Your task to perform on an android device: Search for "razer nari" on walmart, select the first entry, add it to the cart, then select checkout. Image 0: 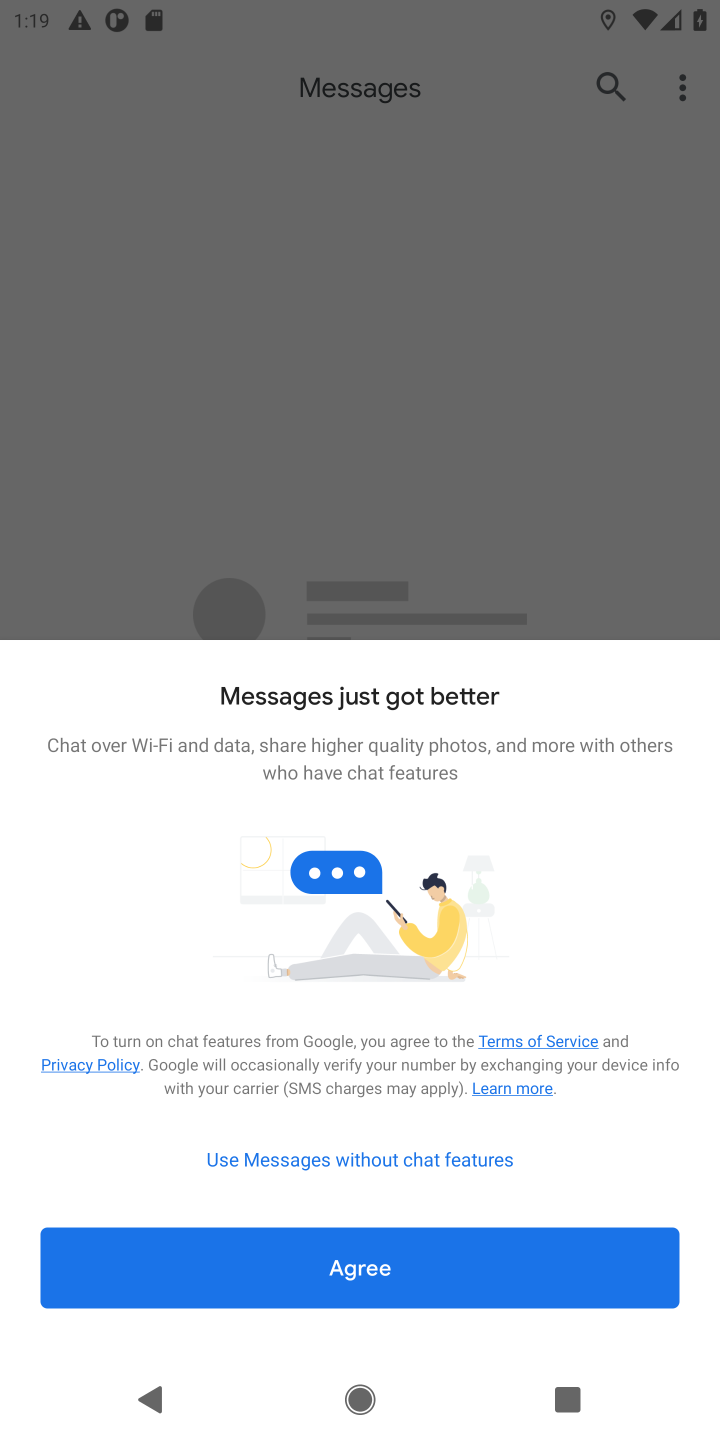
Step 0: press home button
Your task to perform on an android device: Search for "razer nari" on walmart, select the first entry, add it to the cart, then select checkout. Image 1: 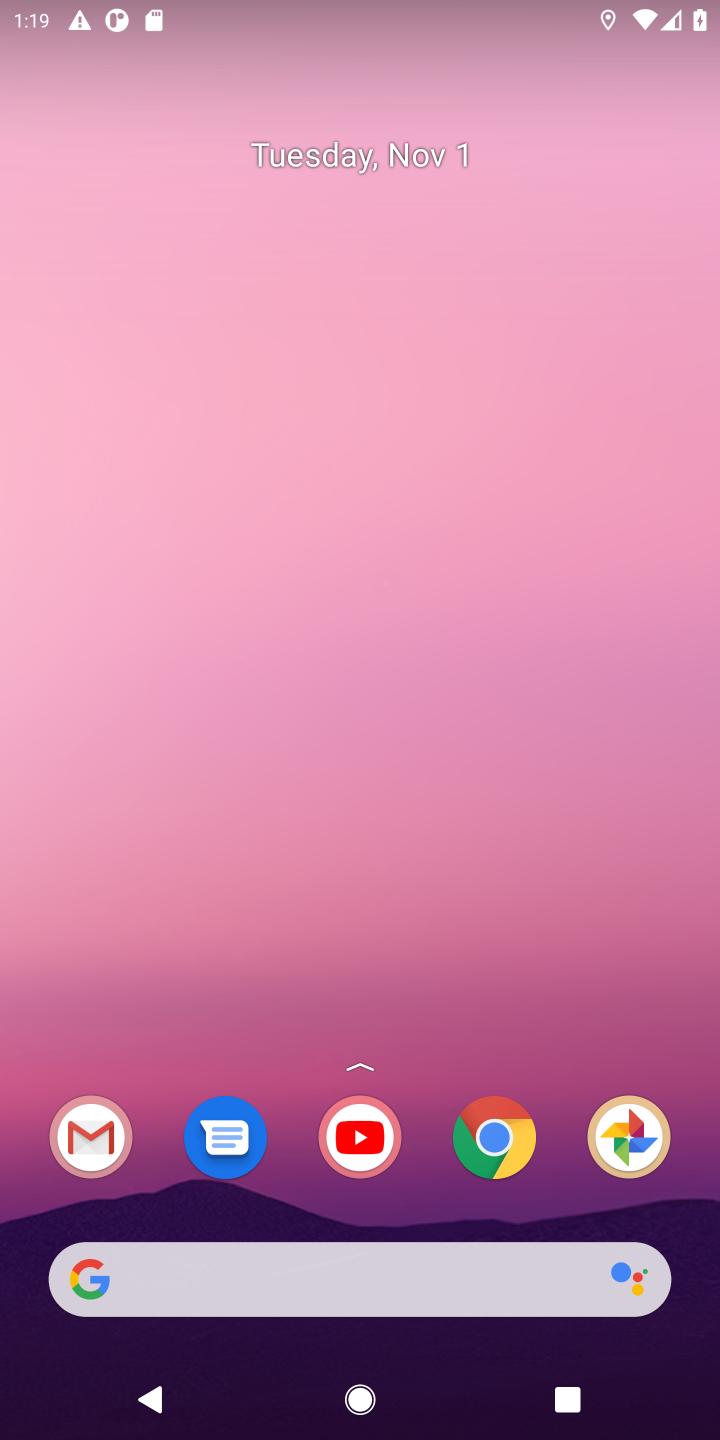
Step 1: drag from (253, 865) to (434, 119)
Your task to perform on an android device: Search for "razer nari" on walmart, select the first entry, add it to the cart, then select checkout. Image 2: 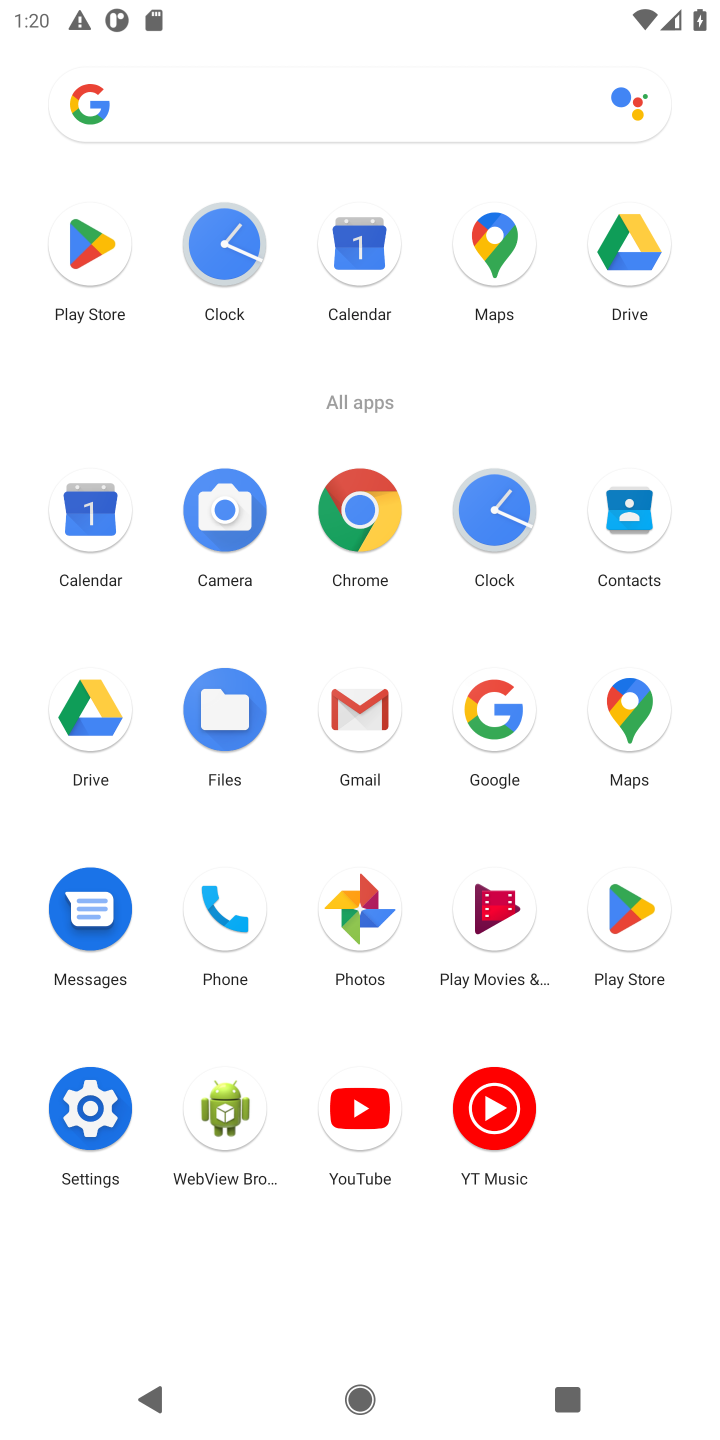
Step 2: click (339, 511)
Your task to perform on an android device: Search for "razer nari" on walmart, select the first entry, add it to the cart, then select checkout. Image 3: 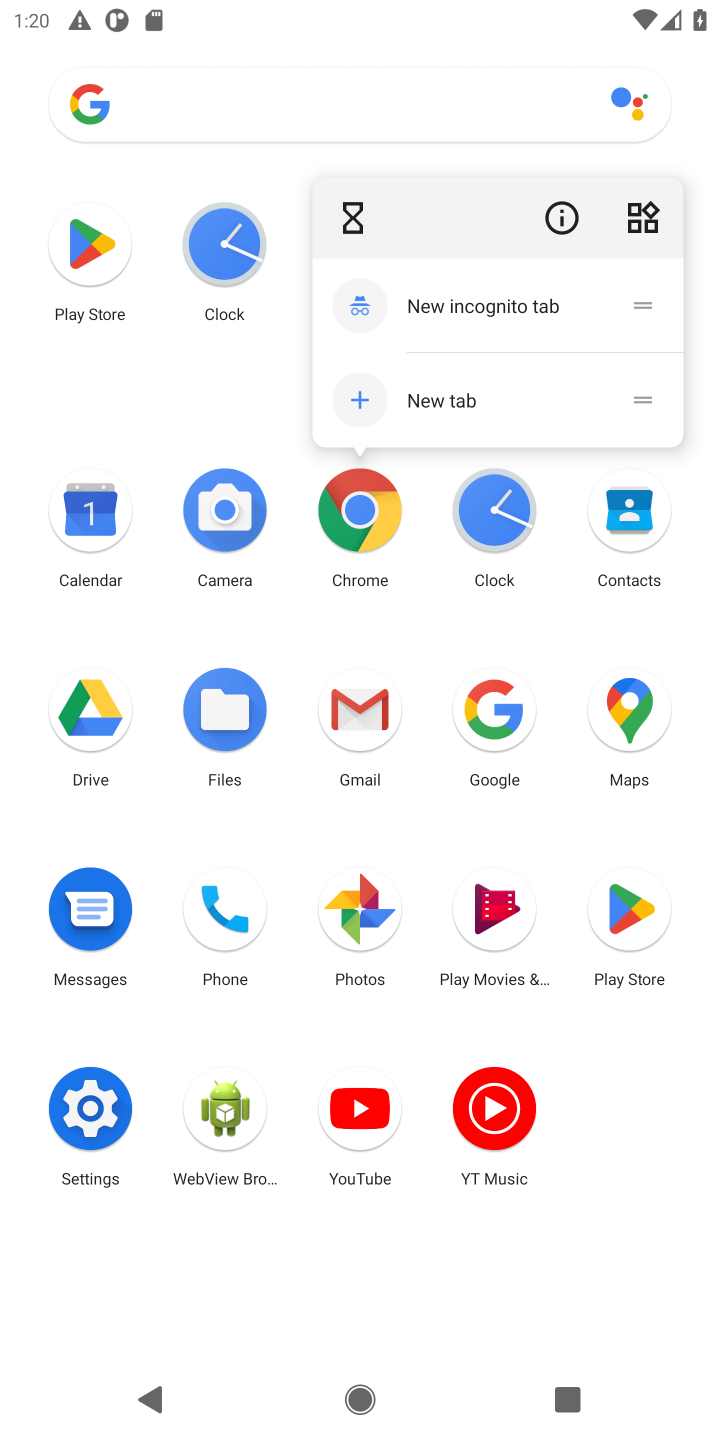
Step 3: click (342, 497)
Your task to perform on an android device: Search for "razer nari" on walmart, select the first entry, add it to the cart, then select checkout. Image 4: 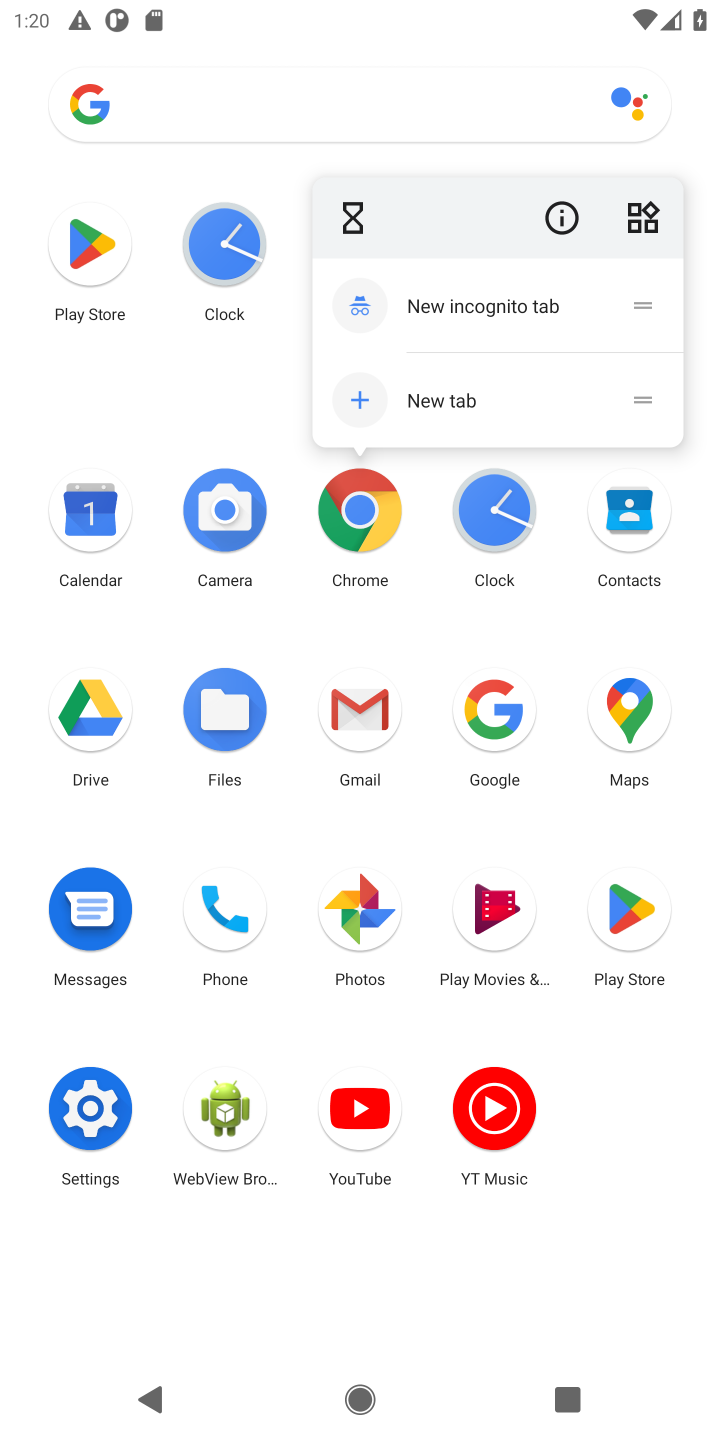
Step 4: click (341, 496)
Your task to perform on an android device: Search for "razer nari" on walmart, select the first entry, add it to the cart, then select checkout. Image 5: 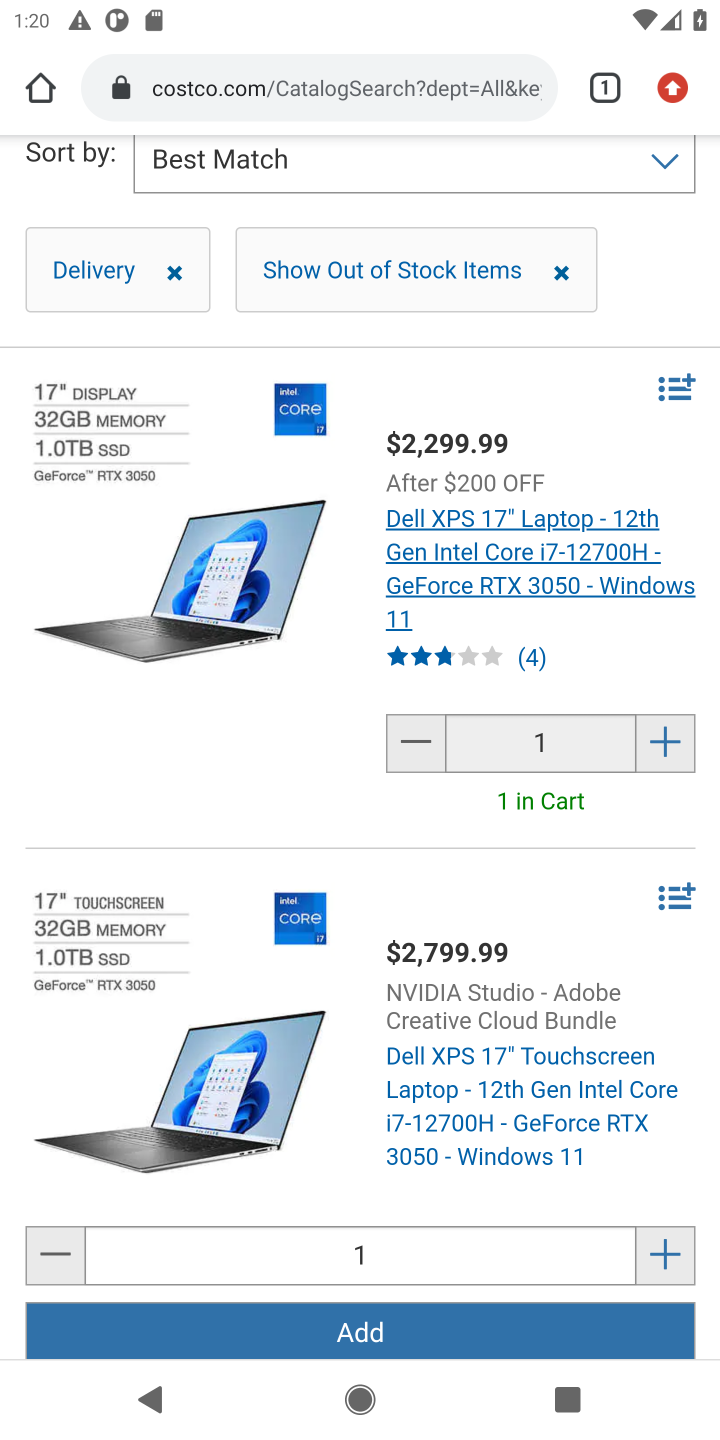
Step 5: click (254, 92)
Your task to perform on an android device: Search for "razer nari" on walmart, select the first entry, add it to the cart, then select checkout. Image 6: 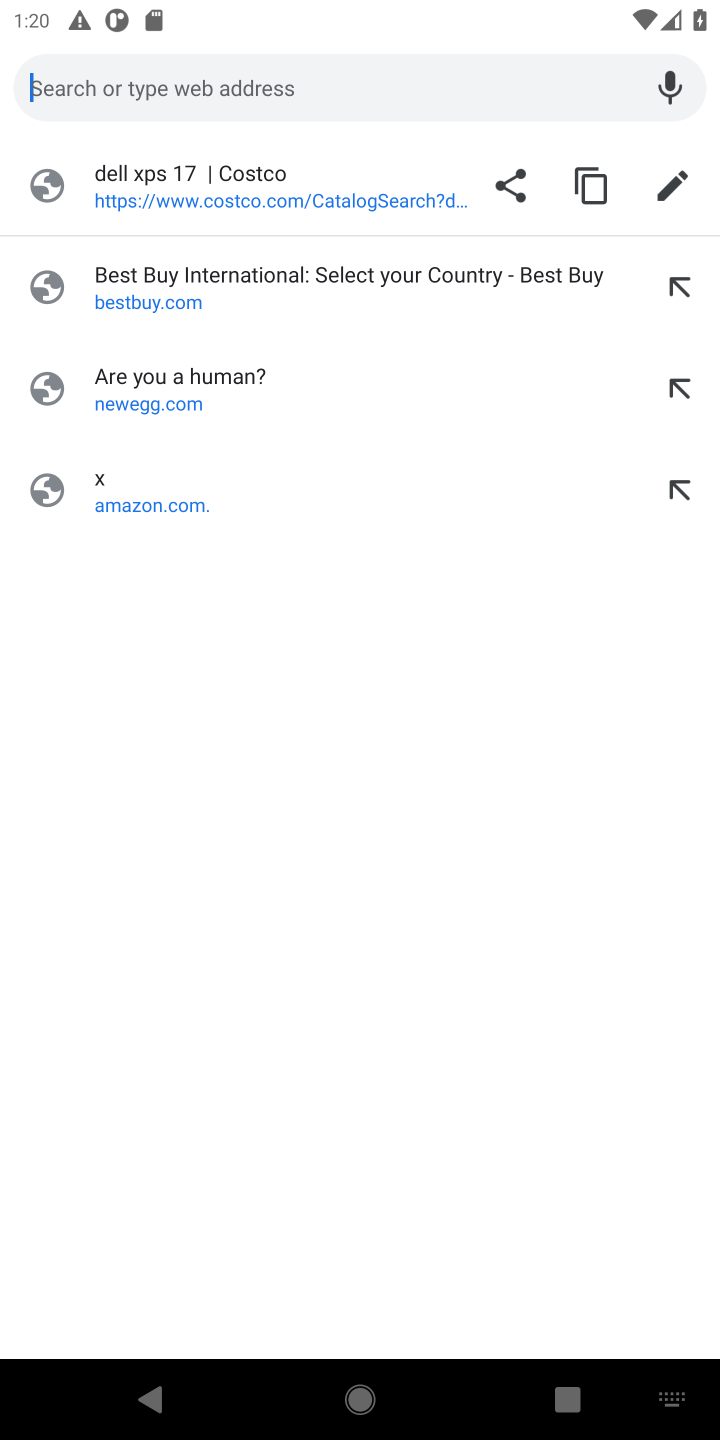
Step 6: type "walmart"
Your task to perform on an android device: Search for "razer nari" on walmart, select the first entry, add it to the cart, then select checkout. Image 7: 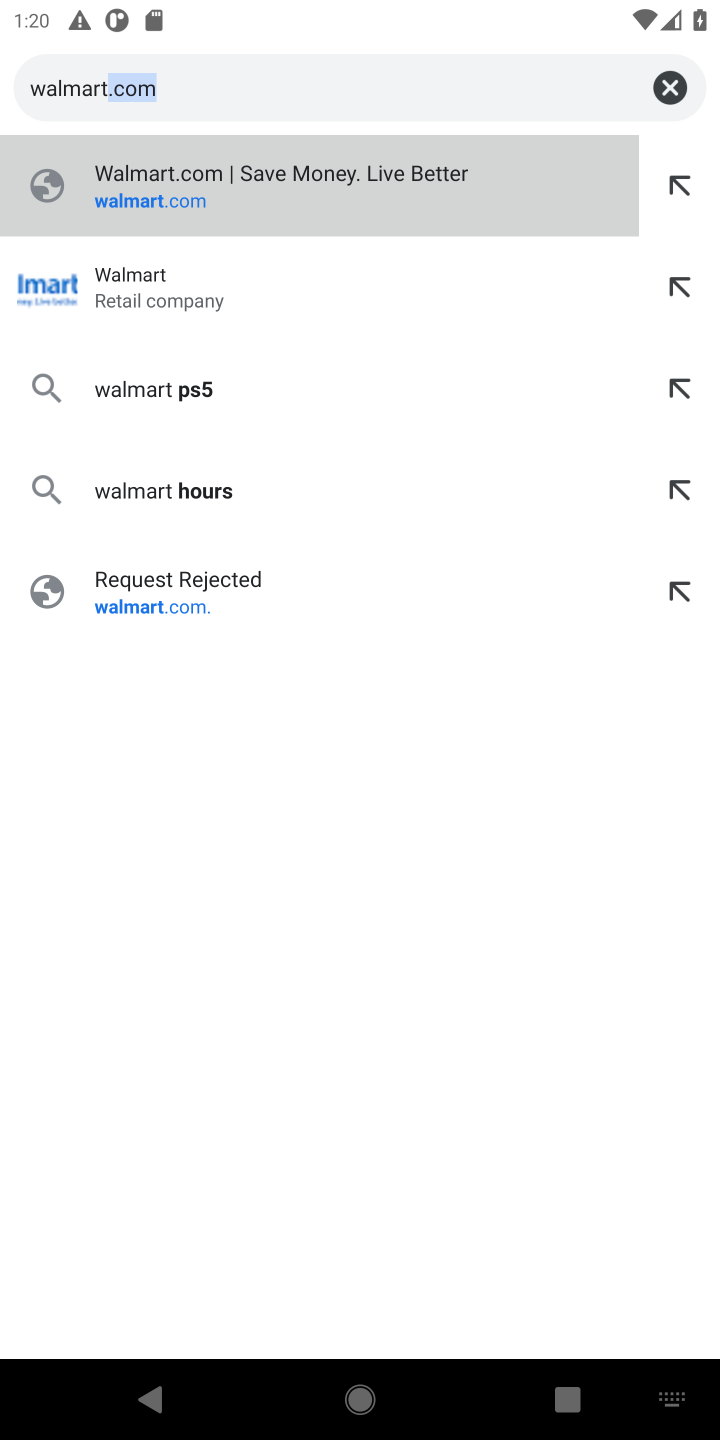
Step 7: press enter
Your task to perform on an android device: Search for "razer nari" on walmart, select the first entry, add it to the cart, then select checkout. Image 8: 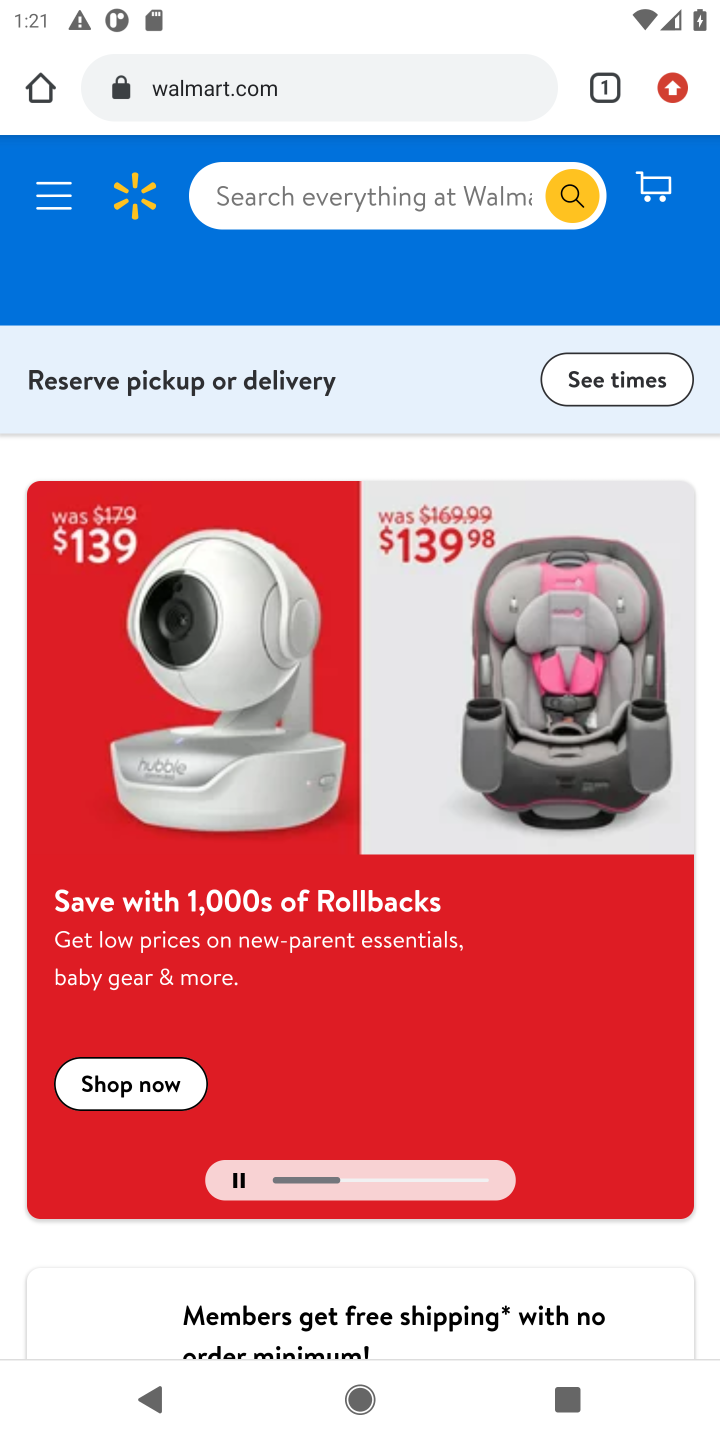
Step 8: click (320, 200)
Your task to perform on an android device: Search for "razer nari" on walmart, select the first entry, add it to the cart, then select checkout. Image 9: 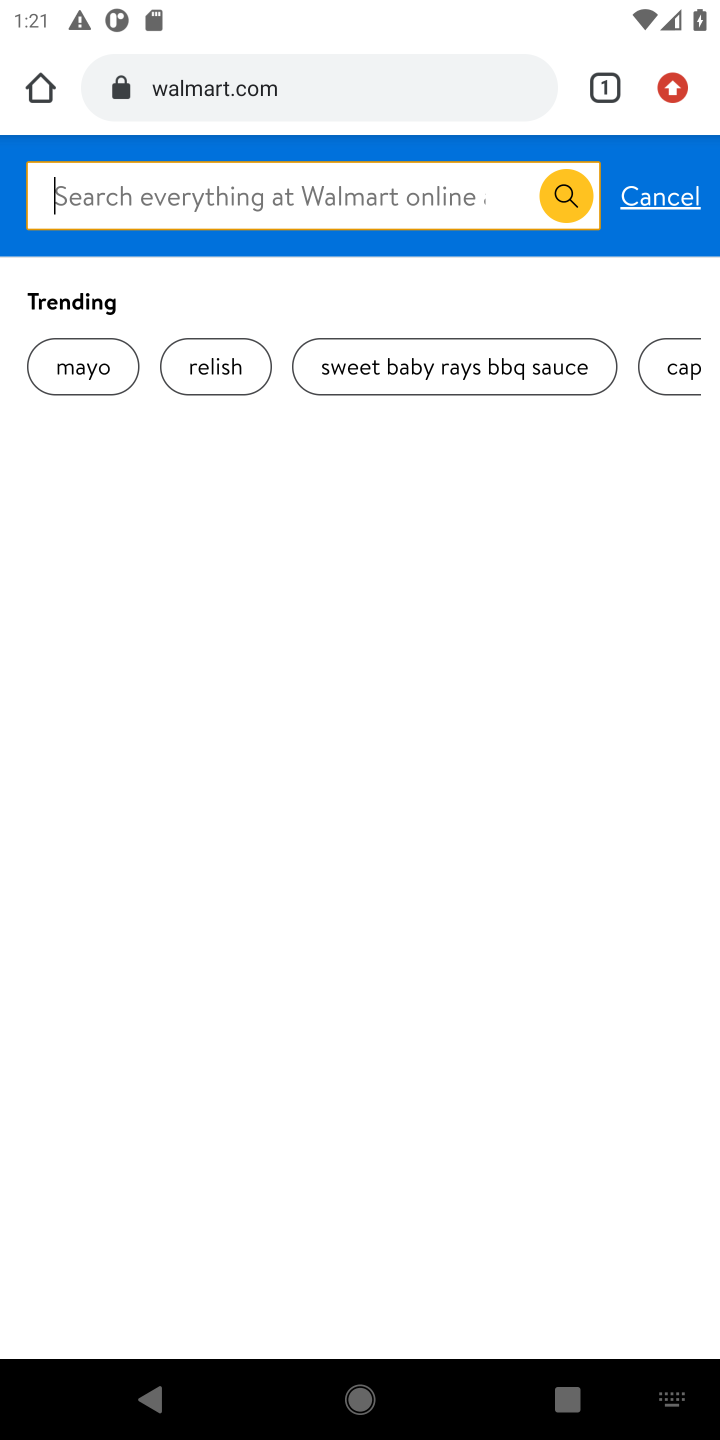
Step 9: type ""razer nari"
Your task to perform on an android device: Search for "razer nari" on walmart, select the first entry, add it to the cart, then select checkout. Image 10: 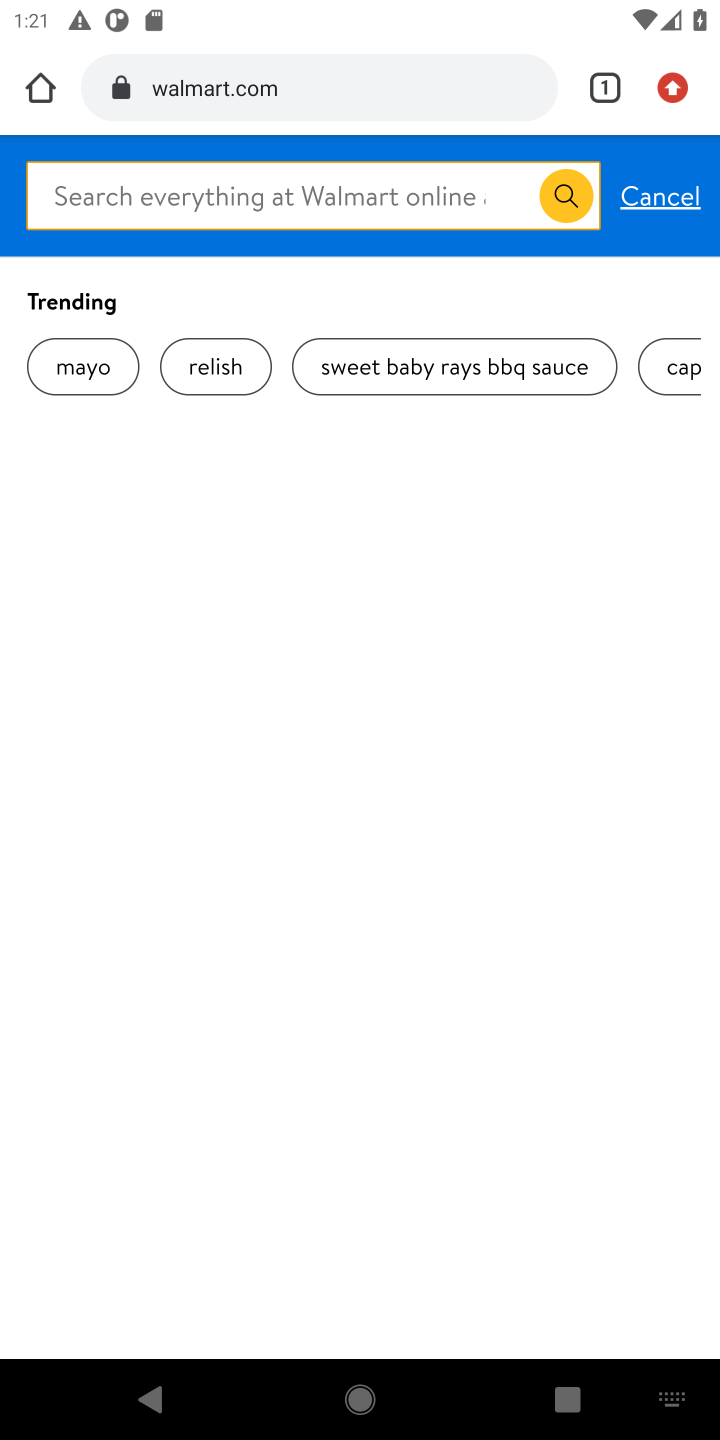
Step 10: press enter
Your task to perform on an android device: Search for "razer nari" on walmart, select the first entry, add it to the cart, then select checkout. Image 11: 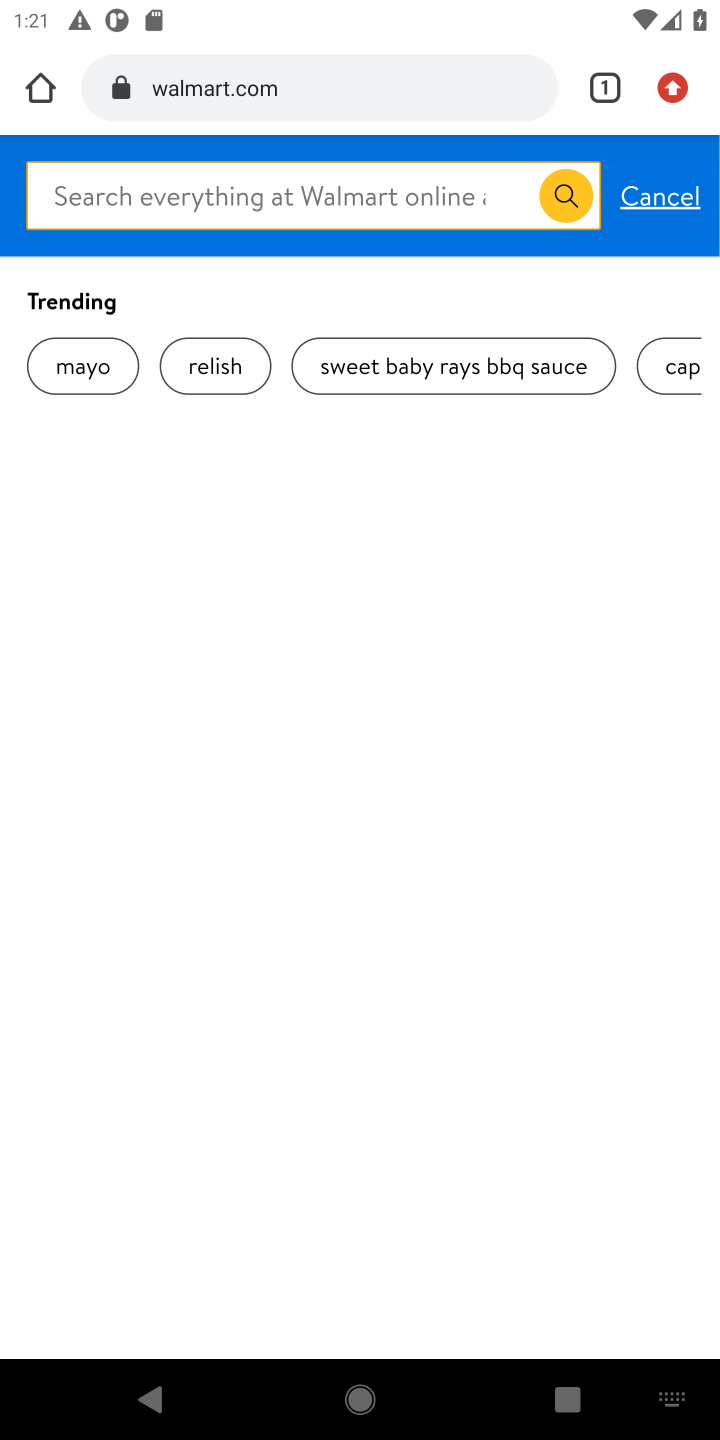
Step 11: type ""razer nari"
Your task to perform on an android device: Search for "razer nari" on walmart, select the first entry, add it to the cart, then select checkout. Image 12: 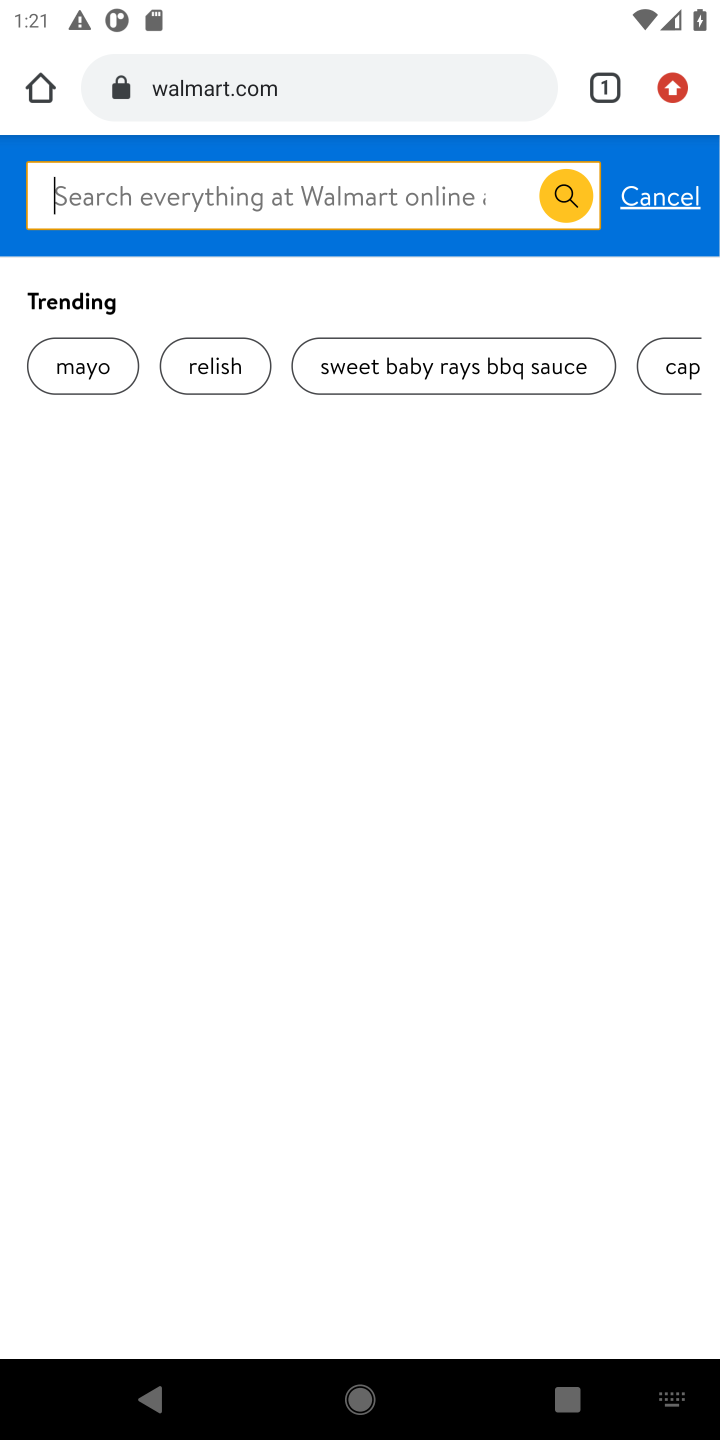
Step 12: press enter
Your task to perform on an android device: Search for "razer nari" on walmart, select the first entry, add it to the cart, then select checkout. Image 13: 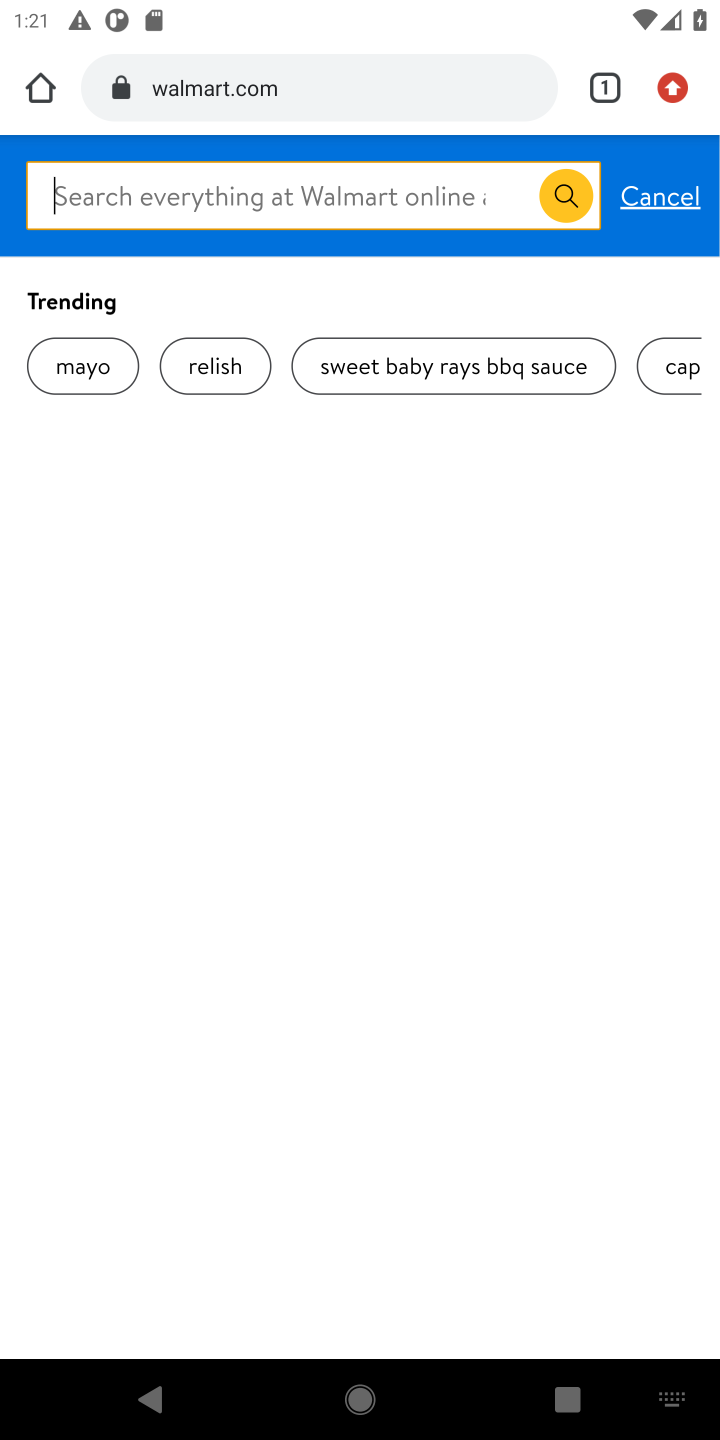
Step 13: click (88, 185)
Your task to perform on an android device: Search for "razer nari" on walmart, select the first entry, add it to the cart, then select checkout. Image 14: 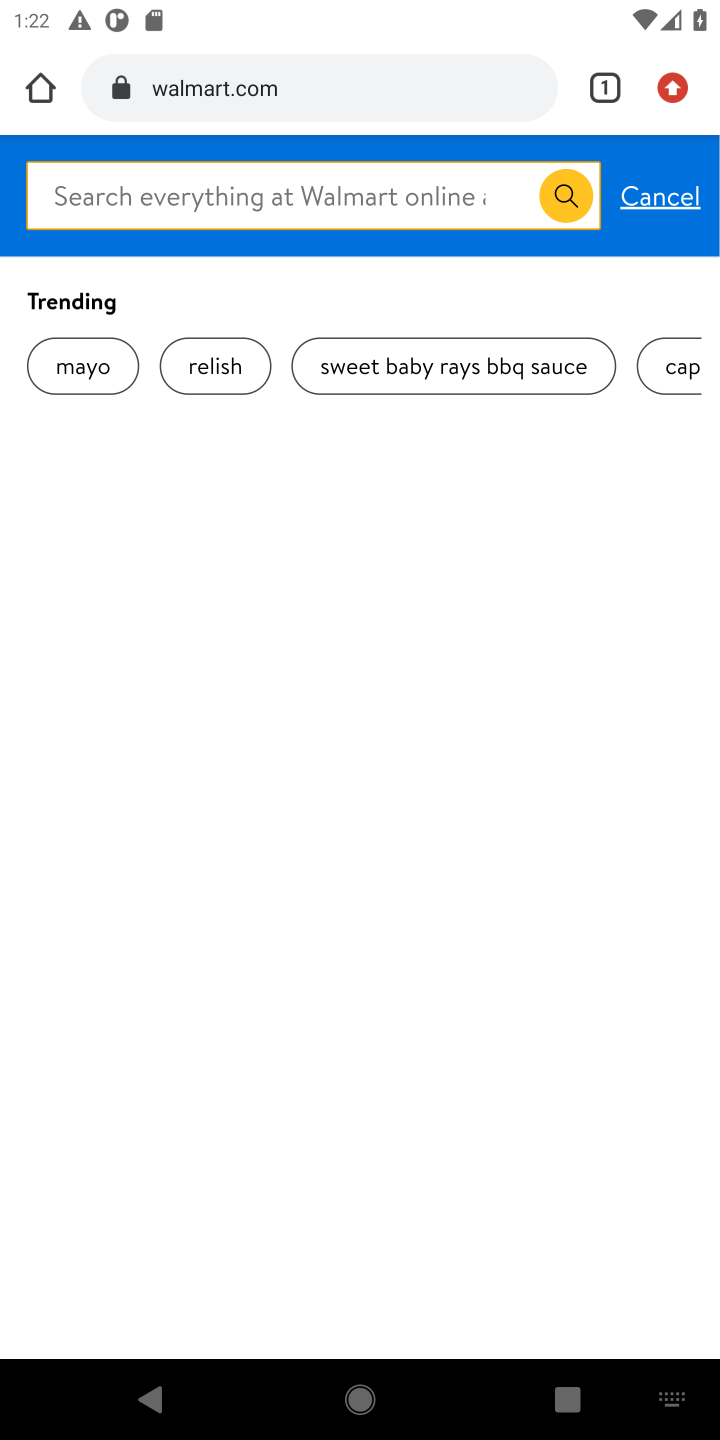
Step 14: type "azer nari"
Your task to perform on an android device: Search for "razer nari" on walmart, select the first entry, add it to the cart, then select checkout. Image 15: 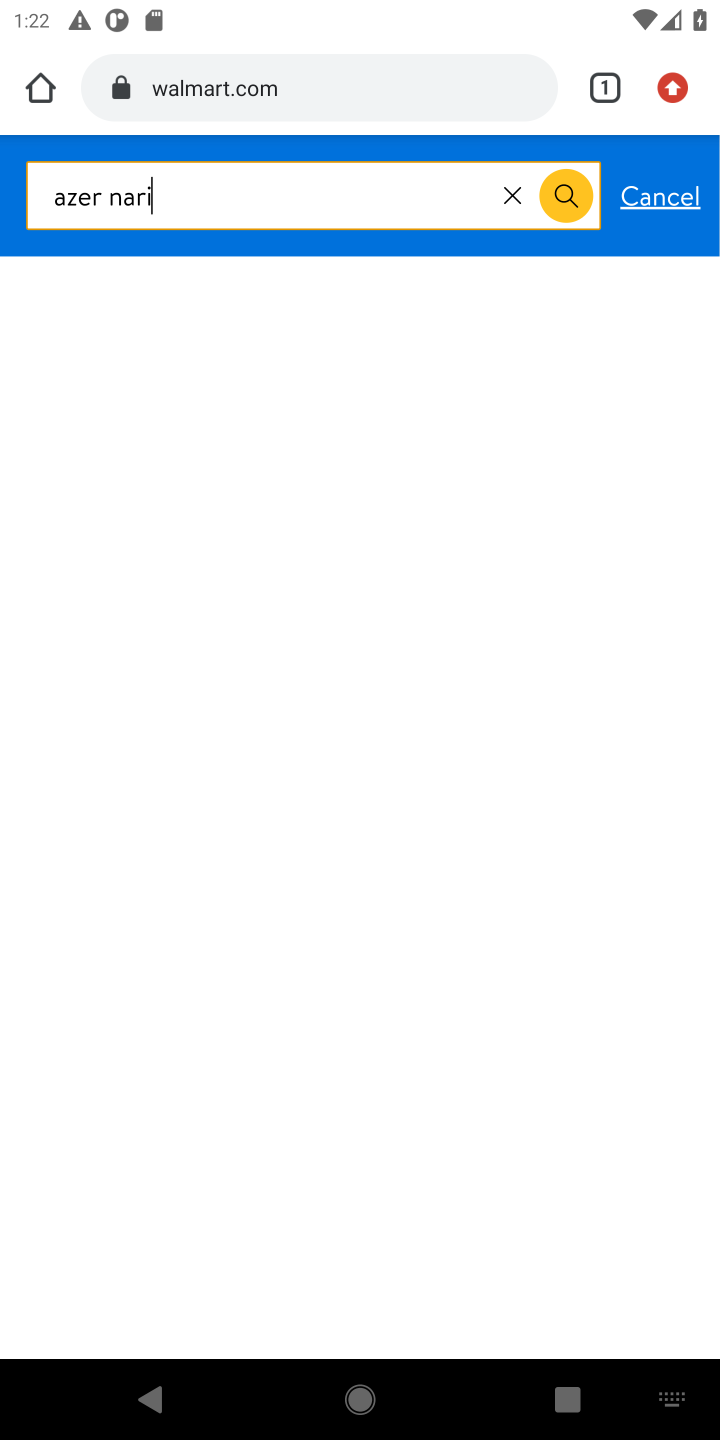
Step 15: press enter
Your task to perform on an android device: Search for "razer nari" on walmart, select the first entry, add it to the cart, then select checkout. Image 16: 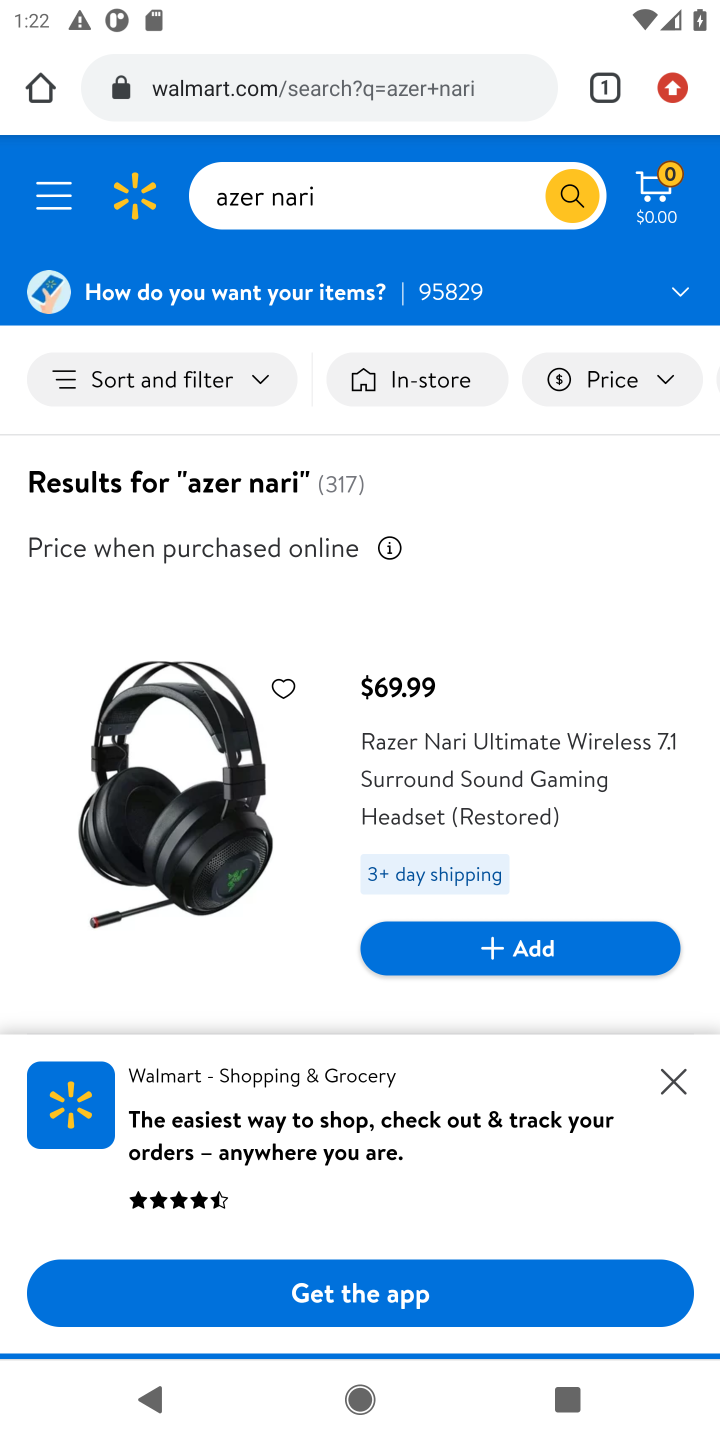
Step 16: click (533, 952)
Your task to perform on an android device: Search for "razer nari" on walmart, select the first entry, add it to the cart, then select checkout. Image 17: 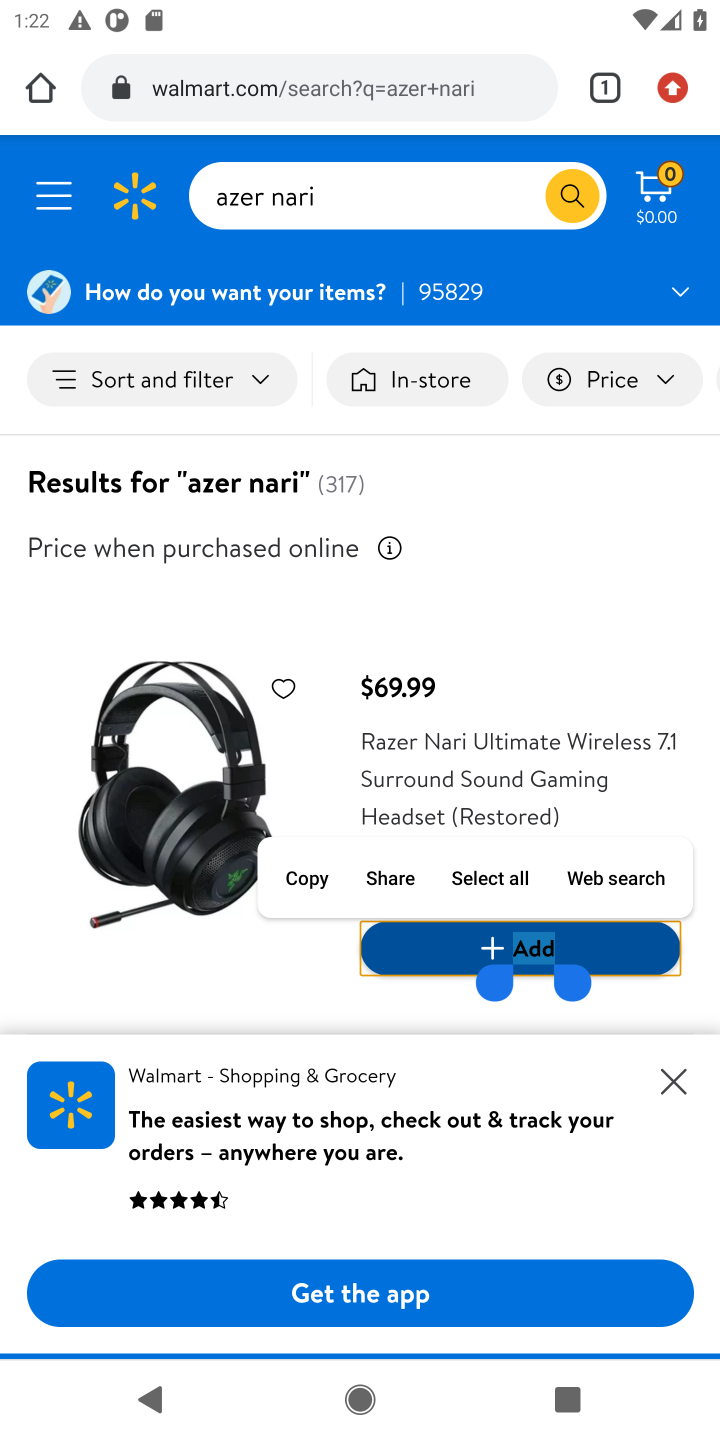
Step 17: click (459, 931)
Your task to perform on an android device: Search for "razer nari" on walmart, select the first entry, add it to the cart, then select checkout. Image 18: 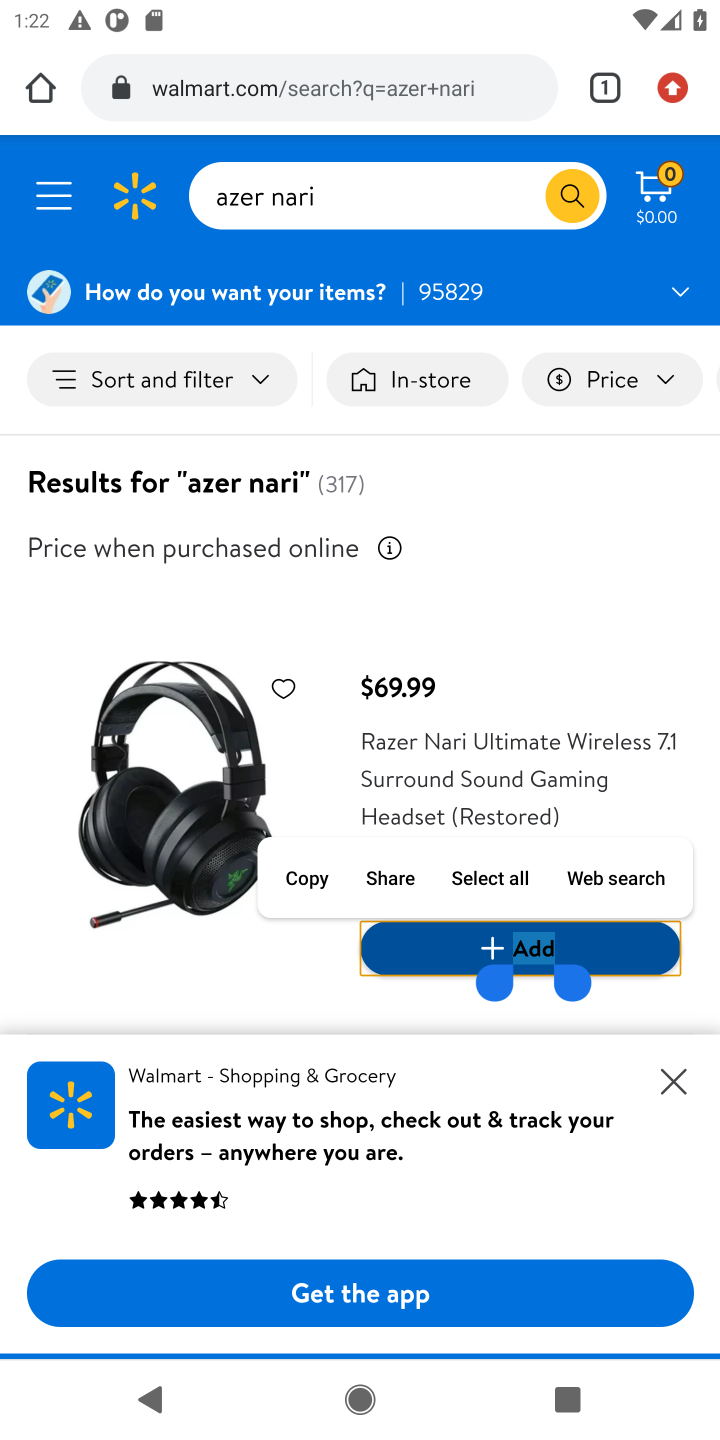
Step 18: click (457, 939)
Your task to perform on an android device: Search for "razer nari" on walmart, select the first entry, add it to the cart, then select checkout. Image 19: 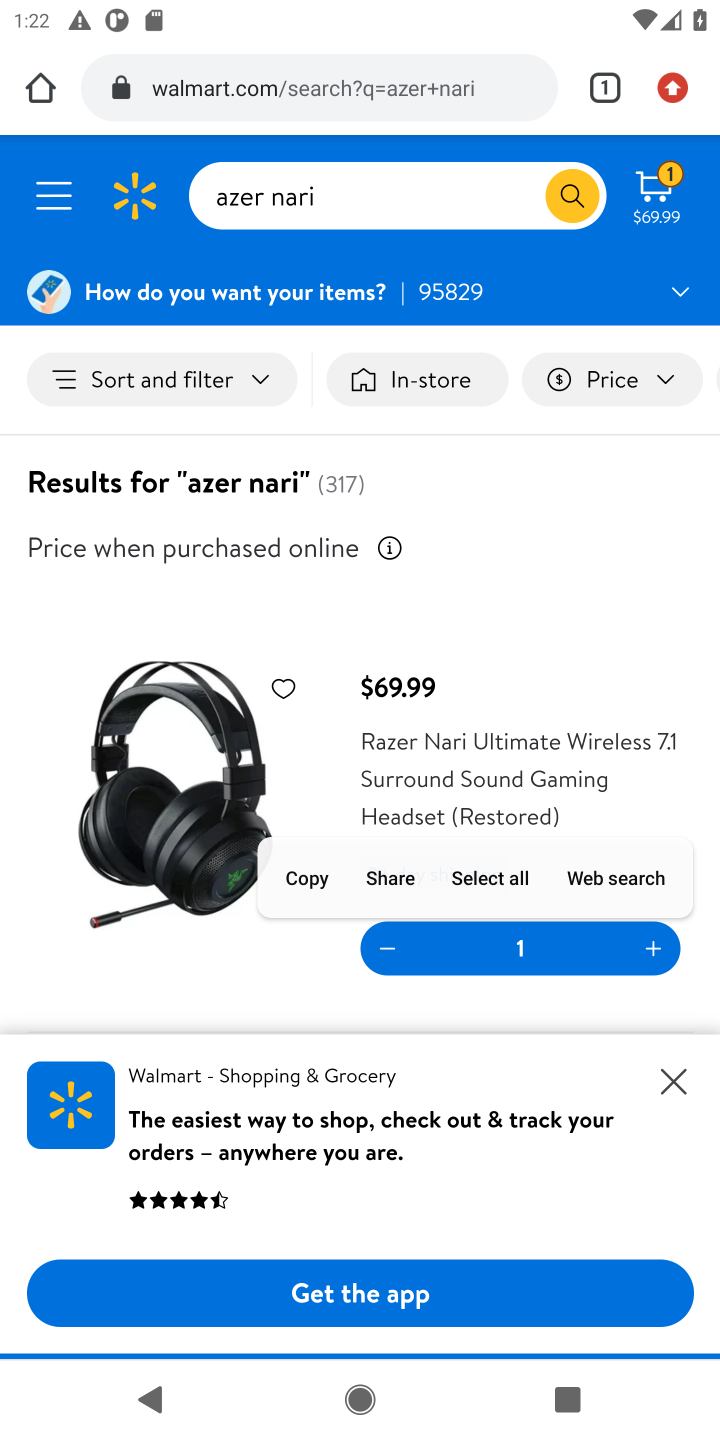
Step 19: click (457, 951)
Your task to perform on an android device: Search for "razer nari" on walmart, select the first entry, add it to the cart, then select checkout. Image 20: 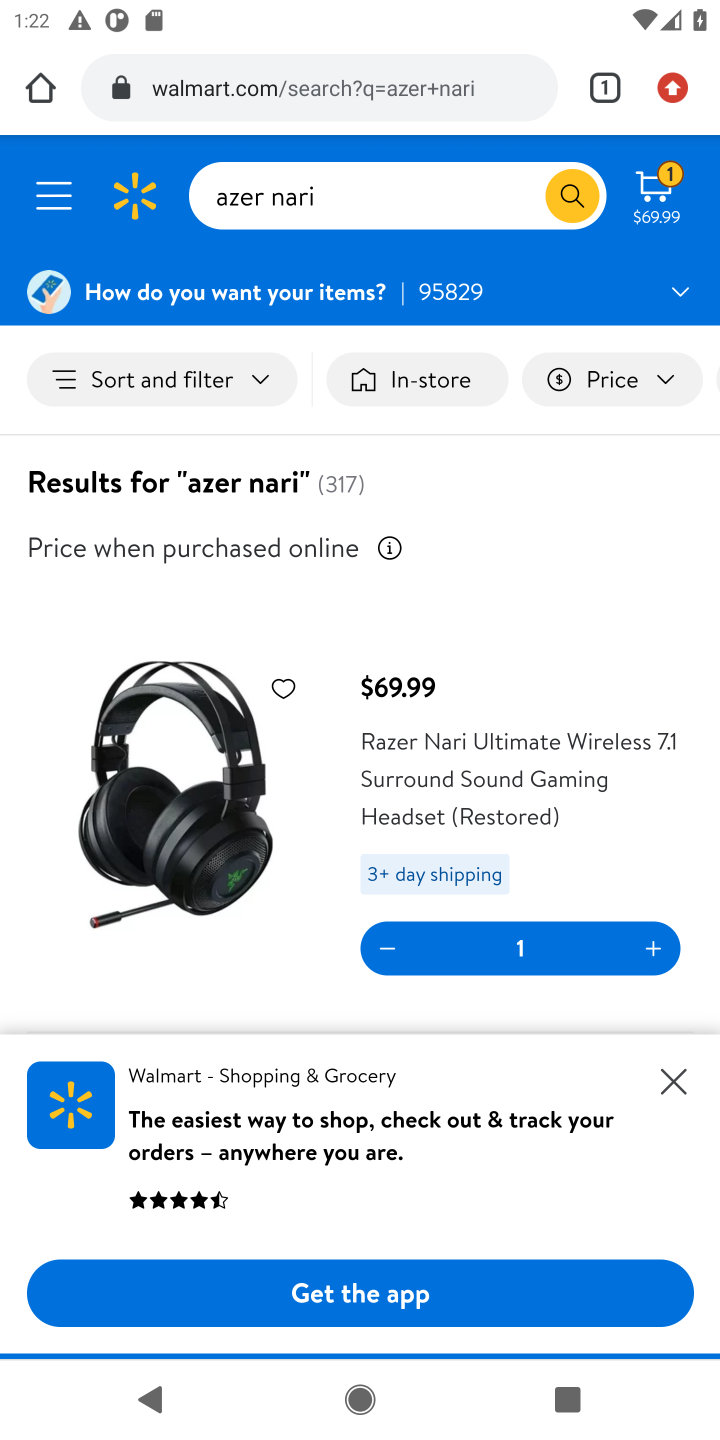
Step 20: click (669, 1074)
Your task to perform on an android device: Search for "razer nari" on walmart, select the first entry, add it to the cart, then select checkout. Image 21: 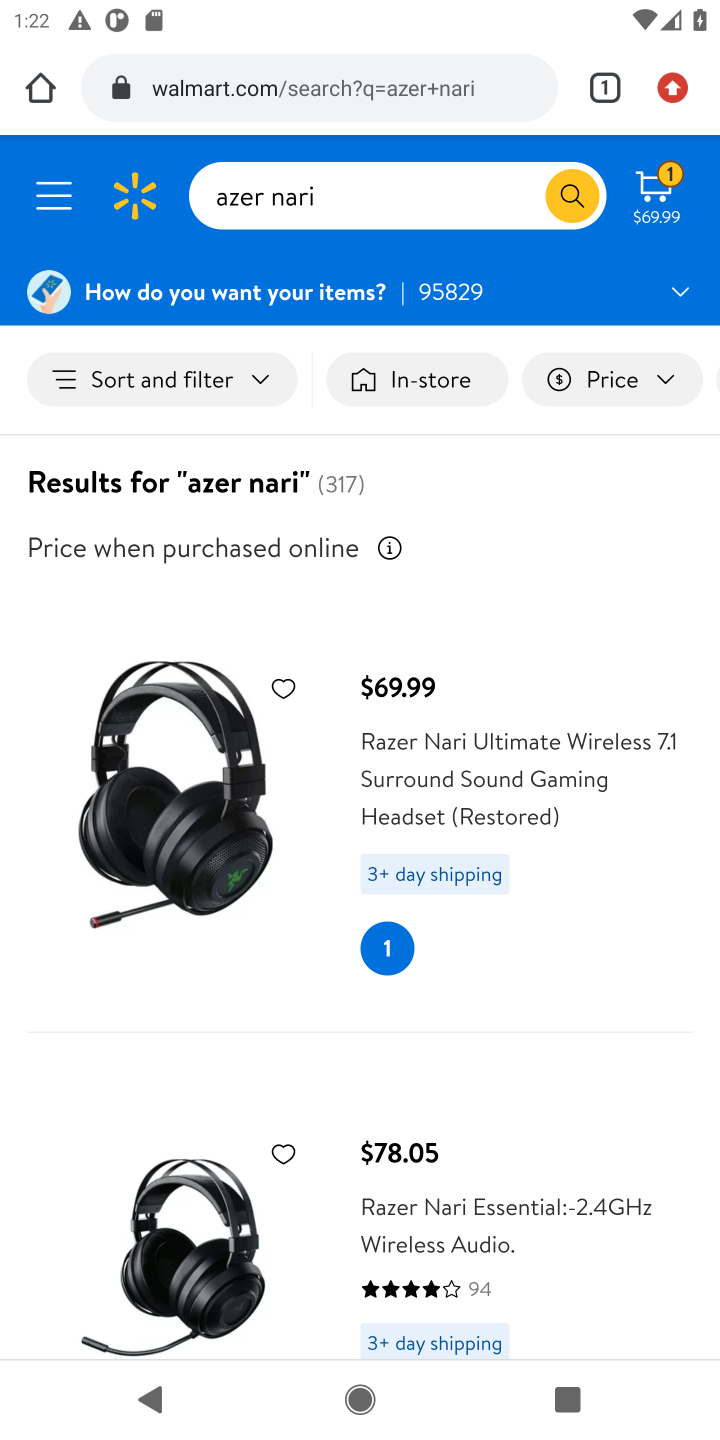
Step 21: click (657, 182)
Your task to perform on an android device: Search for "razer nari" on walmart, select the first entry, add it to the cart, then select checkout. Image 22: 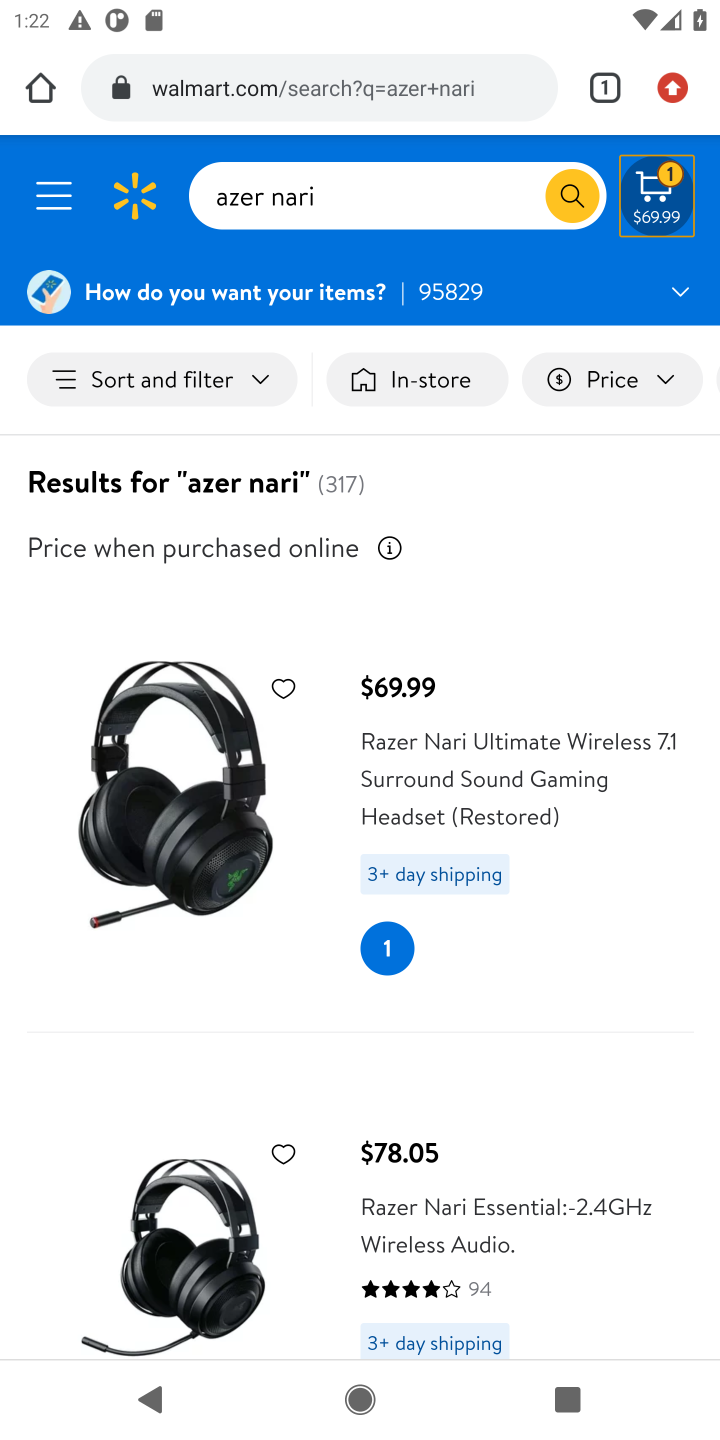
Step 22: click (654, 186)
Your task to perform on an android device: Search for "razer nari" on walmart, select the first entry, add it to the cart, then select checkout. Image 23: 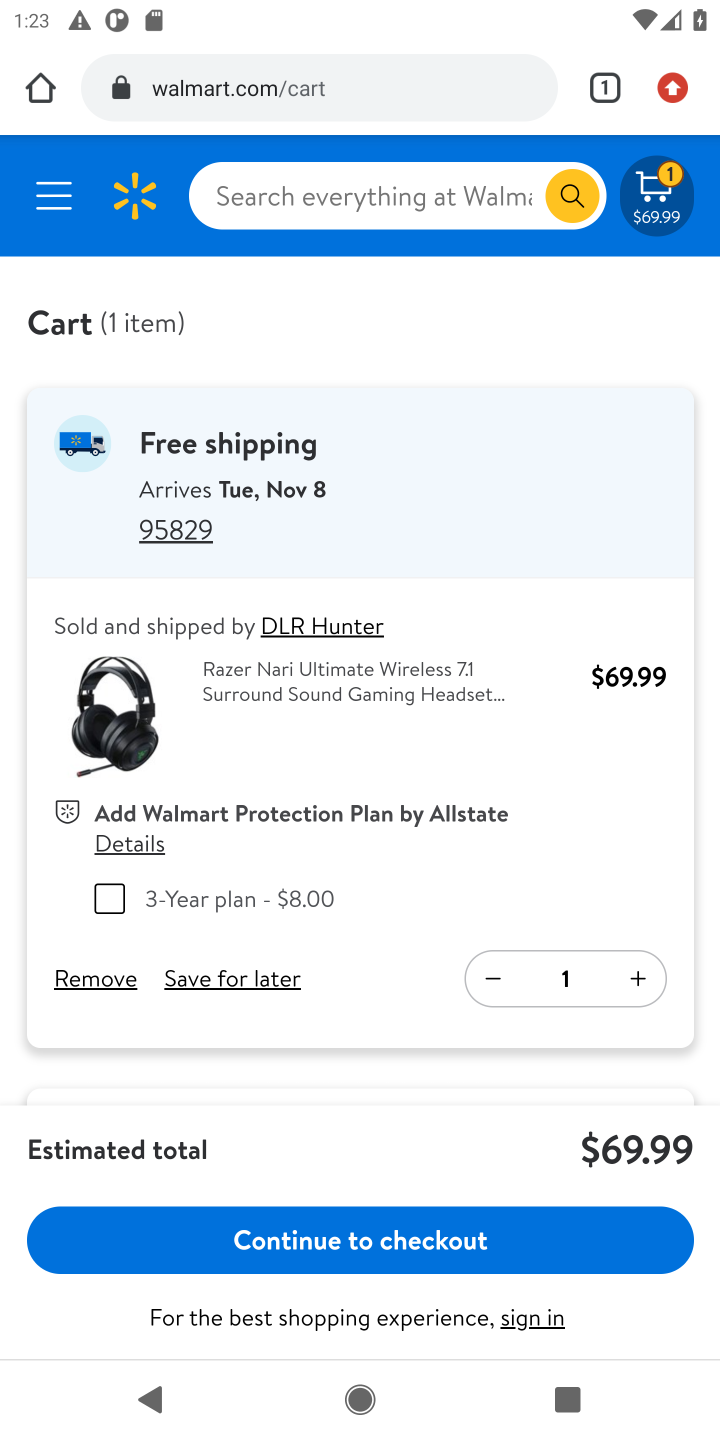
Step 23: click (314, 1246)
Your task to perform on an android device: Search for "razer nari" on walmart, select the first entry, add it to the cart, then select checkout. Image 24: 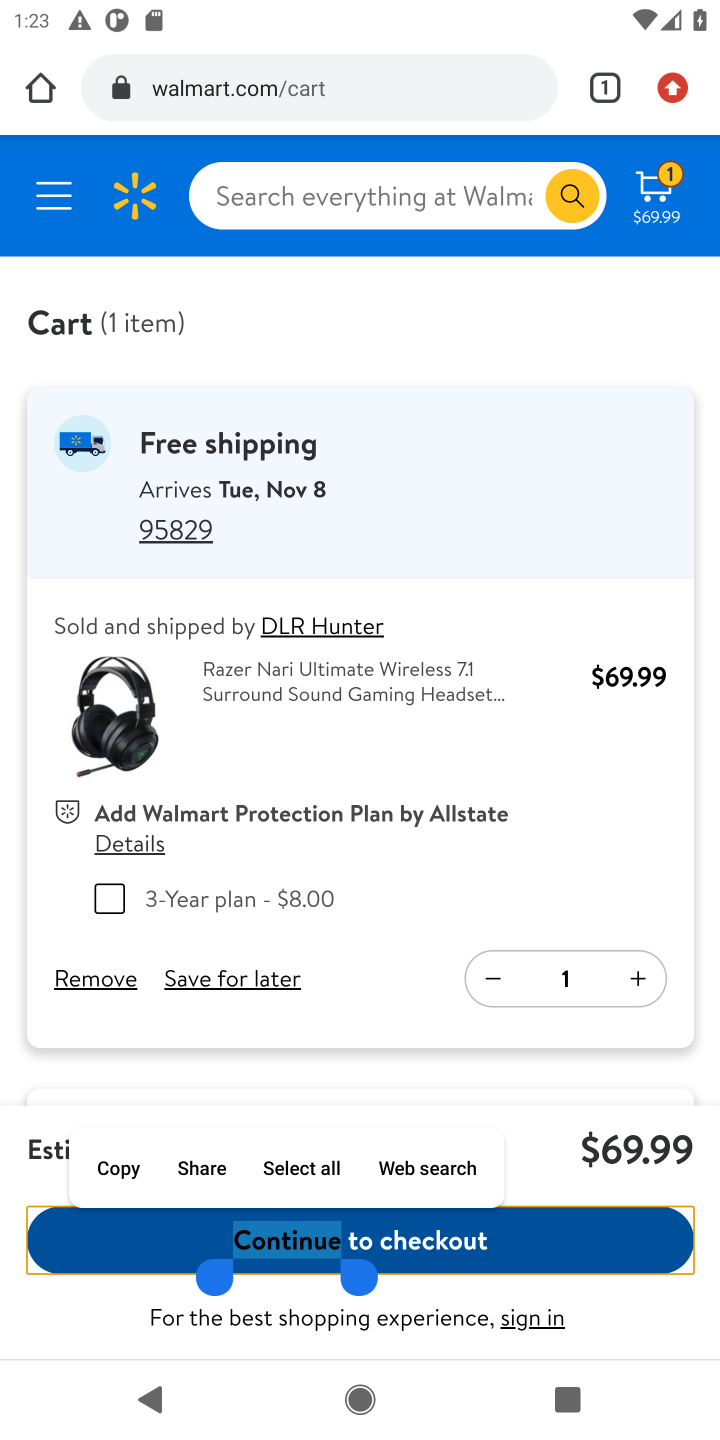
Step 24: click (465, 1239)
Your task to perform on an android device: Search for "razer nari" on walmart, select the first entry, add it to the cart, then select checkout. Image 25: 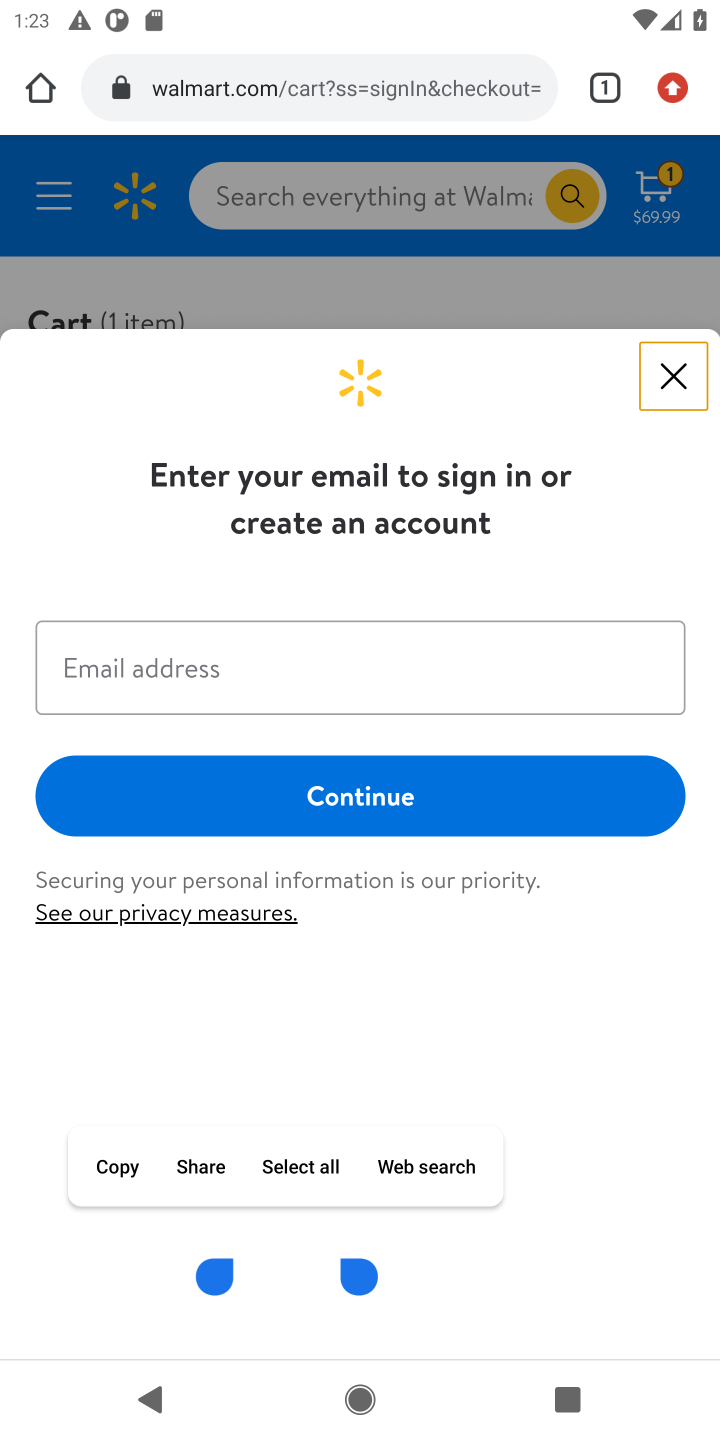
Step 25: task complete